Your task to perform on an android device: find photos in the google photos app Image 0: 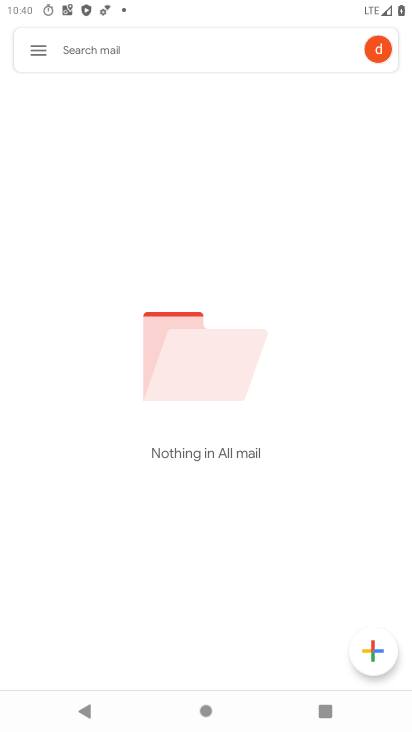
Step 0: press home button
Your task to perform on an android device: find photos in the google photos app Image 1: 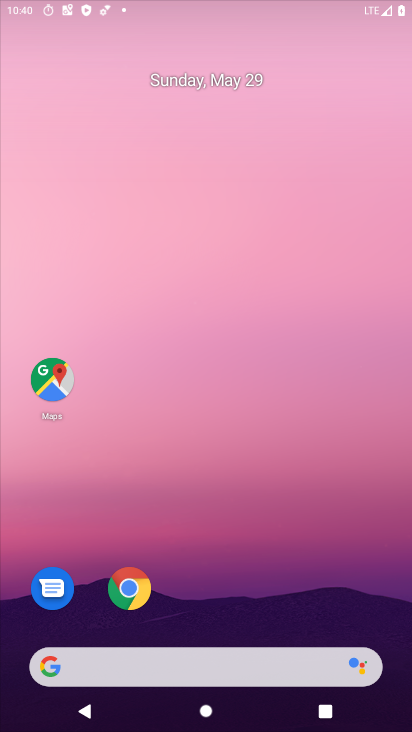
Step 1: drag from (253, 518) to (283, 139)
Your task to perform on an android device: find photos in the google photos app Image 2: 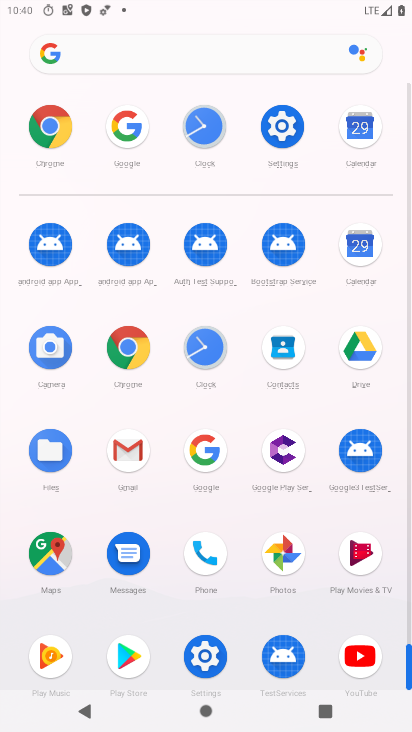
Step 2: click (284, 562)
Your task to perform on an android device: find photos in the google photos app Image 3: 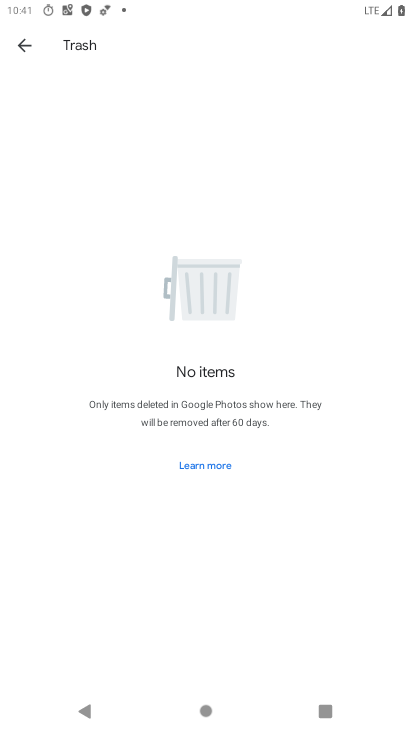
Step 3: press back button
Your task to perform on an android device: find photos in the google photos app Image 4: 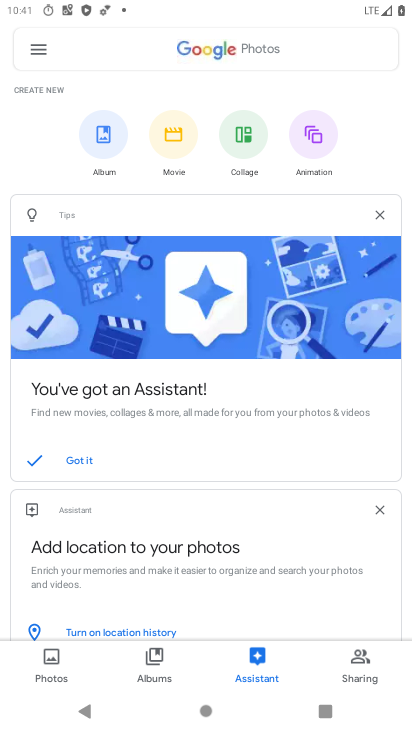
Step 4: click (40, 656)
Your task to perform on an android device: find photos in the google photos app Image 5: 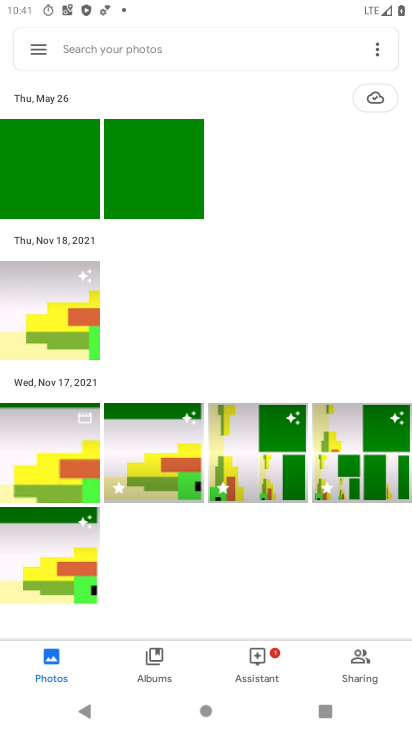
Step 5: task complete